Your task to perform on an android device: turn off notifications in google photos Image 0: 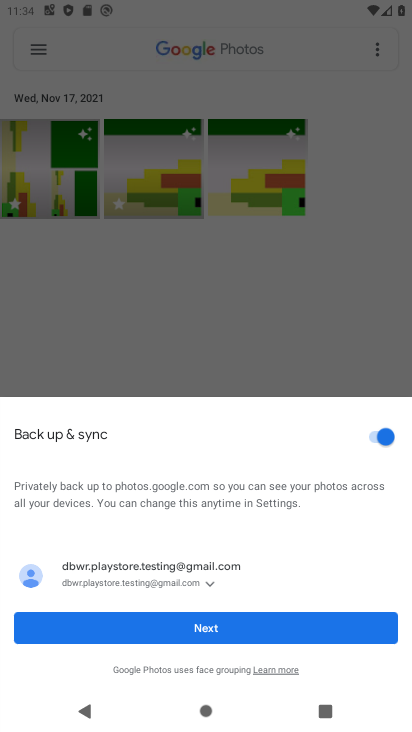
Step 0: press home button
Your task to perform on an android device: turn off notifications in google photos Image 1: 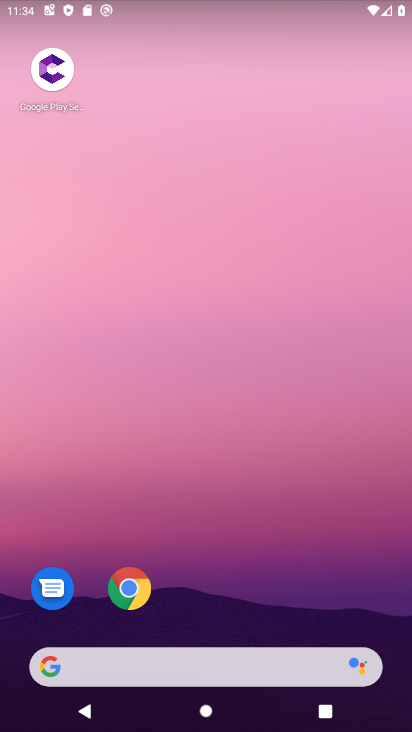
Step 1: drag from (246, 413) to (304, 44)
Your task to perform on an android device: turn off notifications in google photos Image 2: 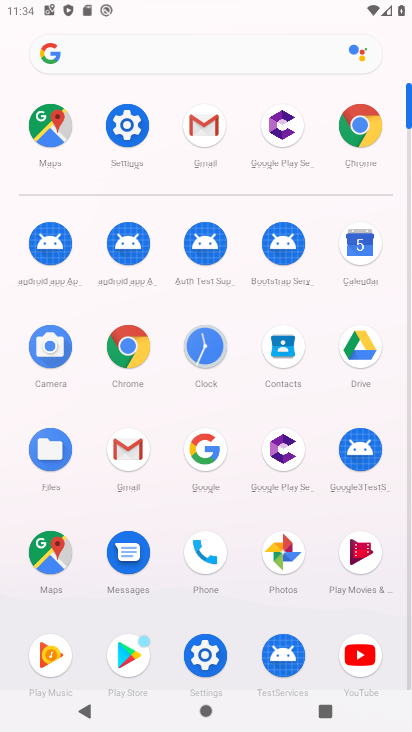
Step 2: click (296, 553)
Your task to perform on an android device: turn off notifications in google photos Image 3: 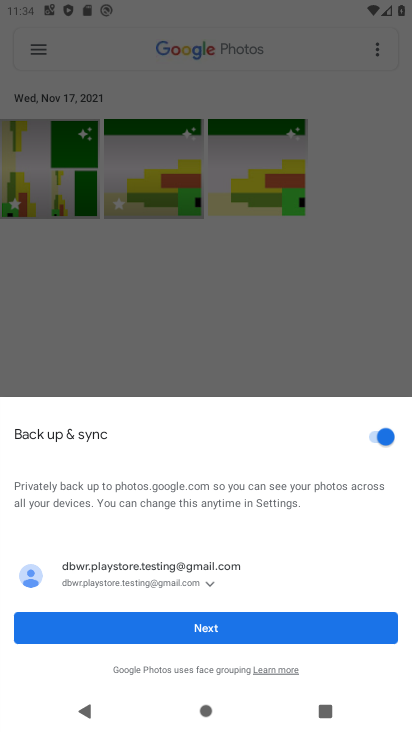
Step 3: click (313, 627)
Your task to perform on an android device: turn off notifications in google photos Image 4: 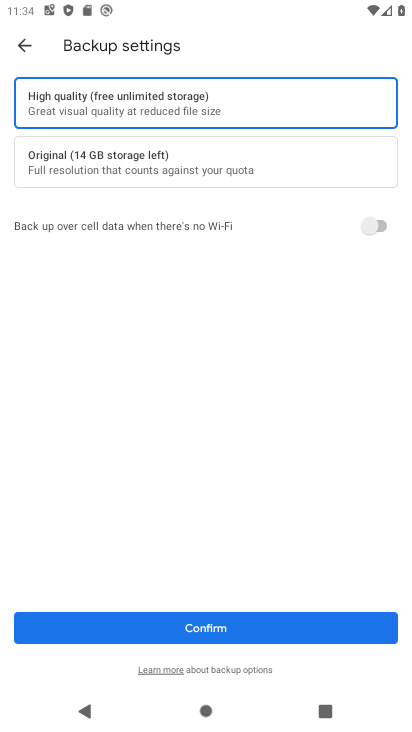
Step 4: click (314, 621)
Your task to perform on an android device: turn off notifications in google photos Image 5: 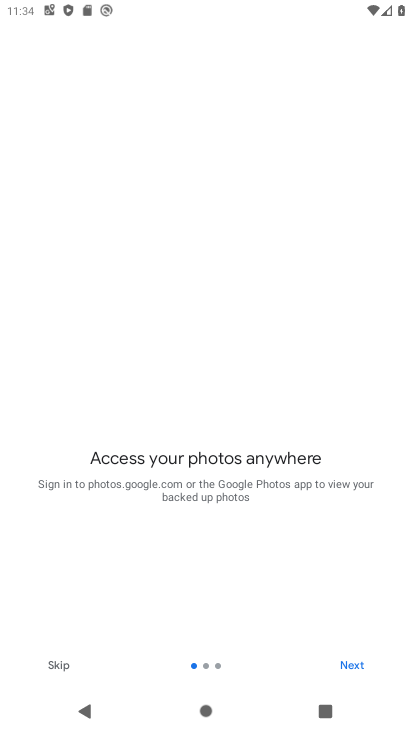
Step 5: click (201, 663)
Your task to perform on an android device: turn off notifications in google photos Image 6: 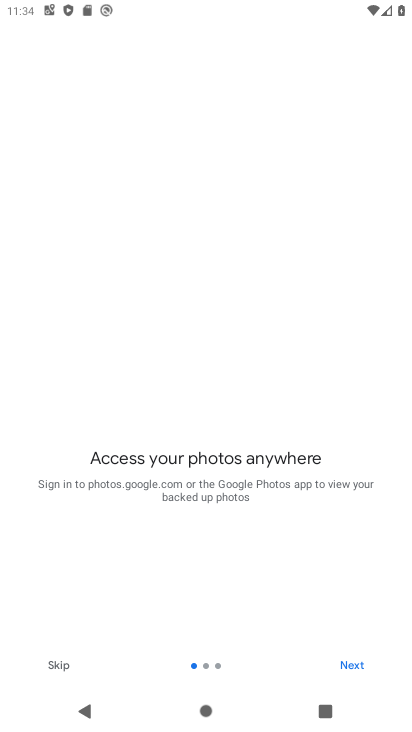
Step 6: click (345, 657)
Your task to perform on an android device: turn off notifications in google photos Image 7: 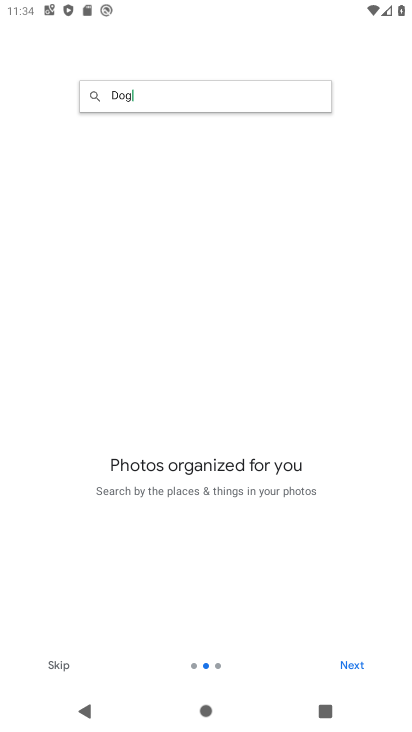
Step 7: click (345, 658)
Your task to perform on an android device: turn off notifications in google photos Image 8: 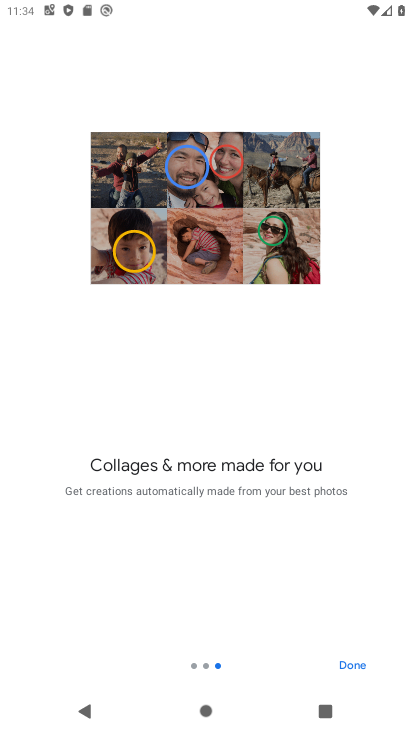
Step 8: click (345, 658)
Your task to perform on an android device: turn off notifications in google photos Image 9: 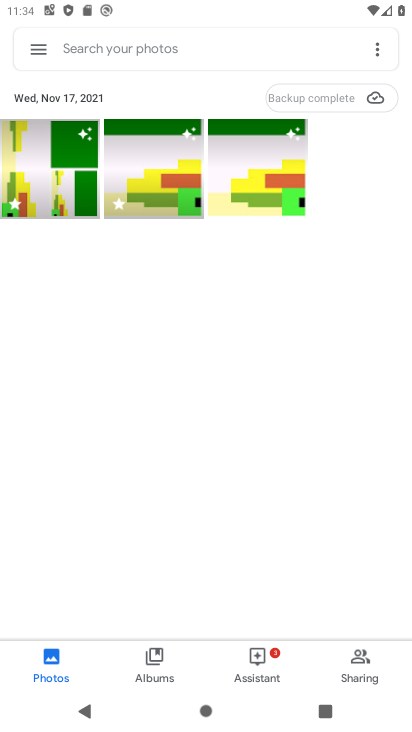
Step 9: click (39, 43)
Your task to perform on an android device: turn off notifications in google photos Image 10: 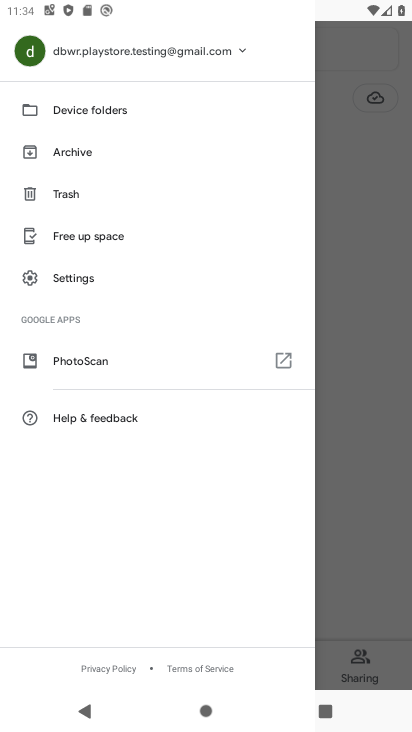
Step 10: click (65, 277)
Your task to perform on an android device: turn off notifications in google photos Image 11: 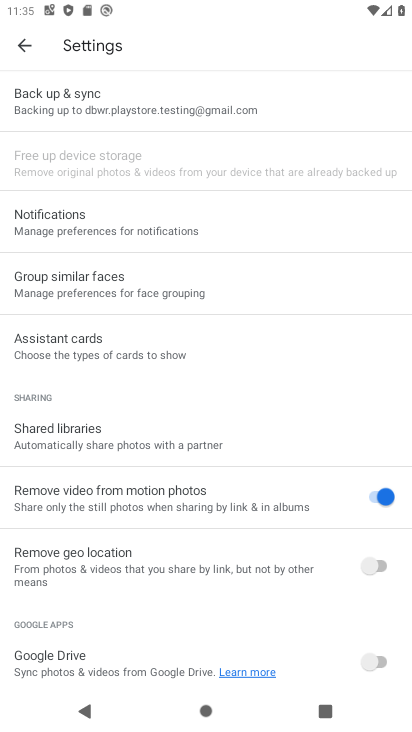
Step 11: click (145, 238)
Your task to perform on an android device: turn off notifications in google photos Image 12: 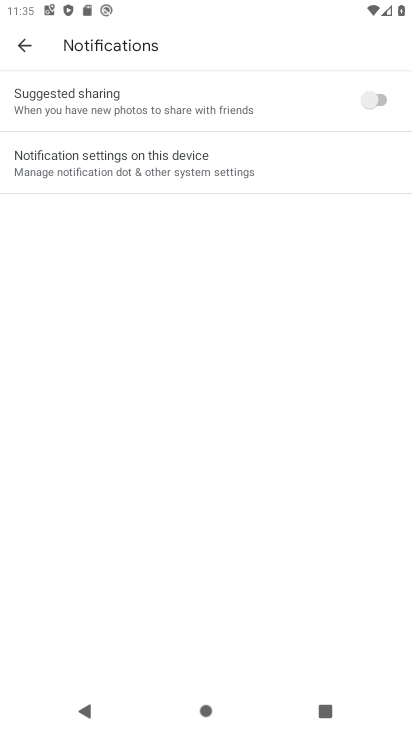
Step 12: task complete